Your task to perform on an android device: Is it going to rain tomorrow? Image 0: 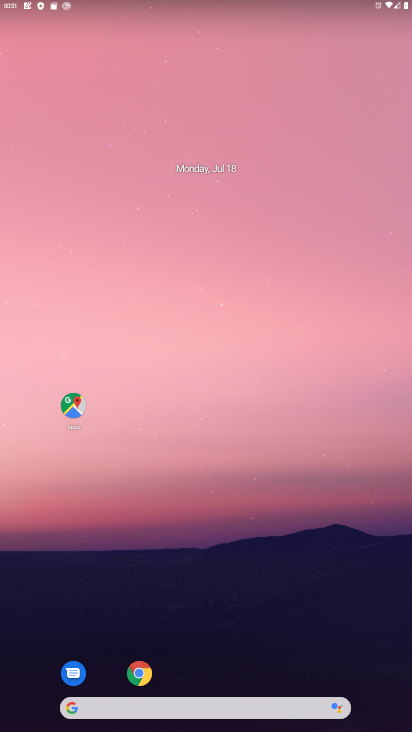
Step 0: drag from (262, 664) to (263, 280)
Your task to perform on an android device: Is it going to rain tomorrow? Image 1: 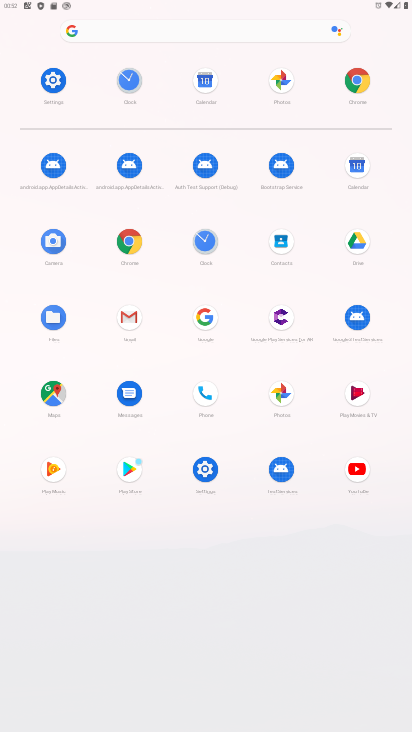
Step 1: click (173, 31)
Your task to perform on an android device: Is it going to rain tomorrow? Image 2: 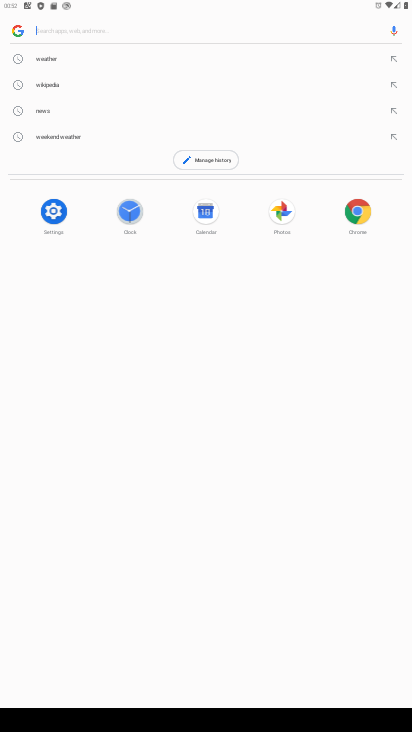
Step 2: type "rain"
Your task to perform on an android device: Is it going to rain tomorrow? Image 3: 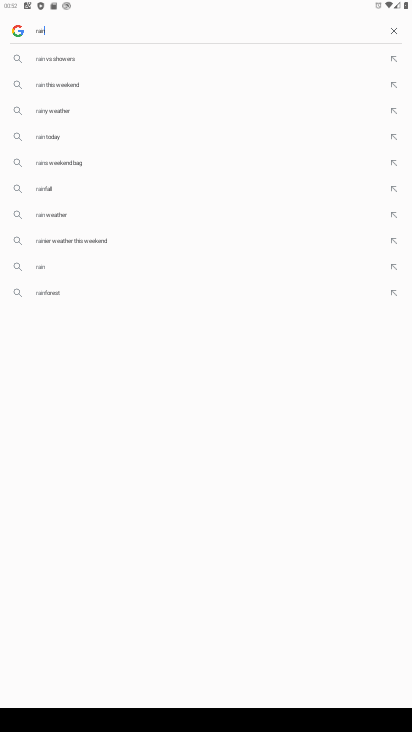
Step 3: click (73, 57)
Your task to perform on an android device: Is it going to rain tomorrow? Image 4: 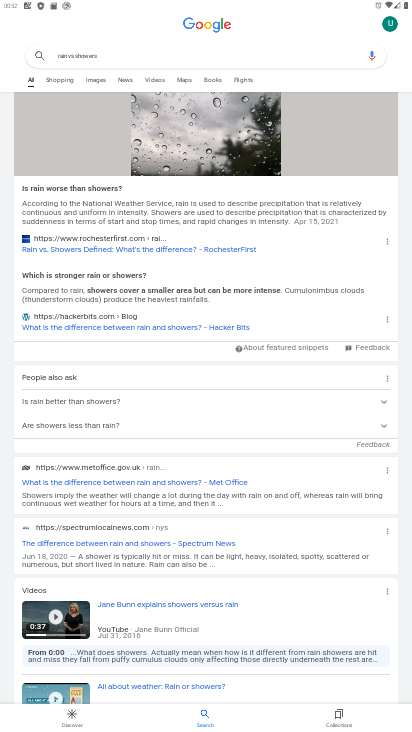
Step 4: task complete